Your task to perform on an android device: turn on showing notifications on the lock screen Image 0: 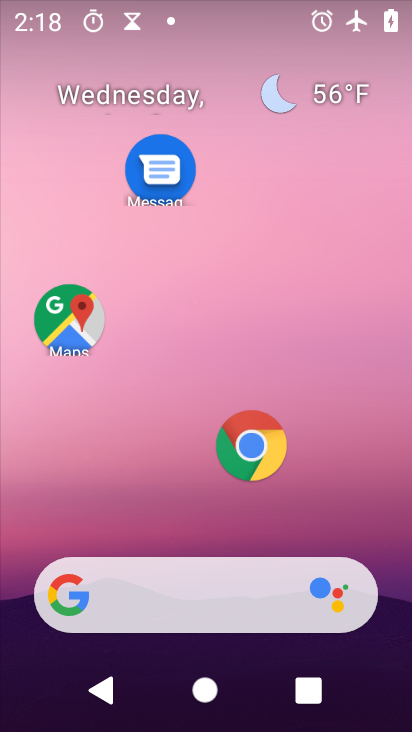
Step 0: drag from (220, 508) to (253, 172)
Your task to perform on an android device: turn on showing notifications on the lock screen Image 1: 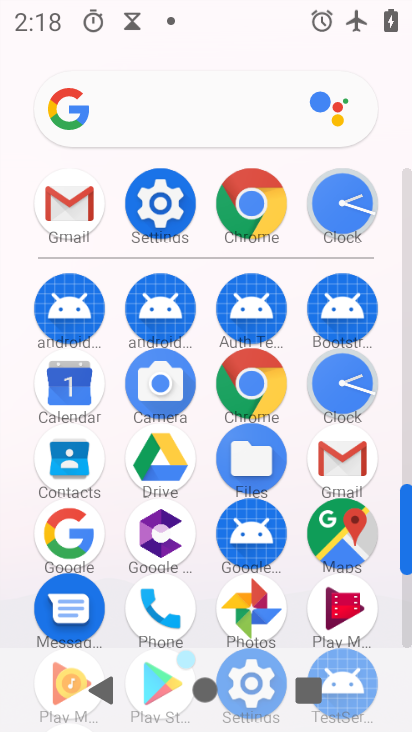
Step 1: drag from (203, 265) to (230, 48)
Your task to perform on an android device: turn on showing notifications on the lock screen Image 2: 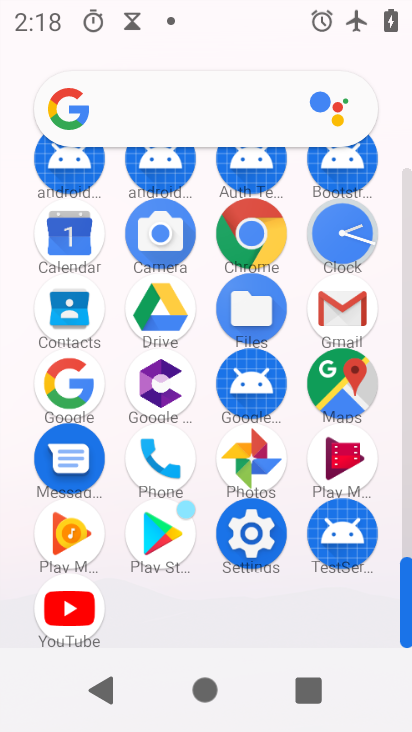
Step 2: click (235, 549)
Your task to perform on an android device: turn on showing notifications on the lock screen Image 3: 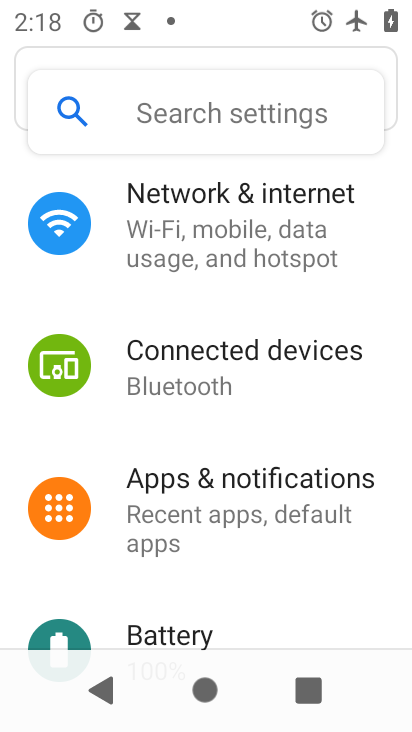
Step 3: click (283, 507)
Your task to perform on an android device: turn on showing notifications on the lock screen Image 4: 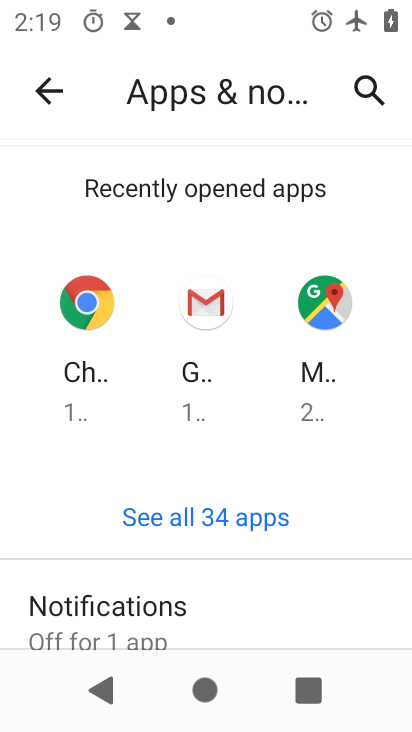
Step 4: drag from (166, 617) to (164, 403)
Your task to perform on an android device: turn on showing notifications on the lock screen Image 5: 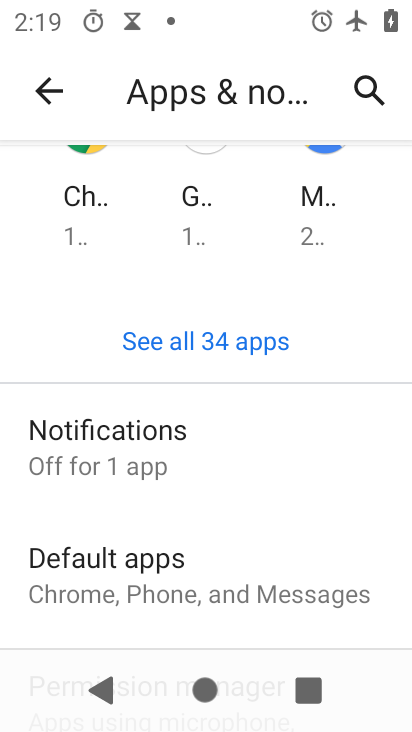
Step 5: click (162, 457)
Your task to perform on an android device: turn on showing notifications on the lock screen Image 6: 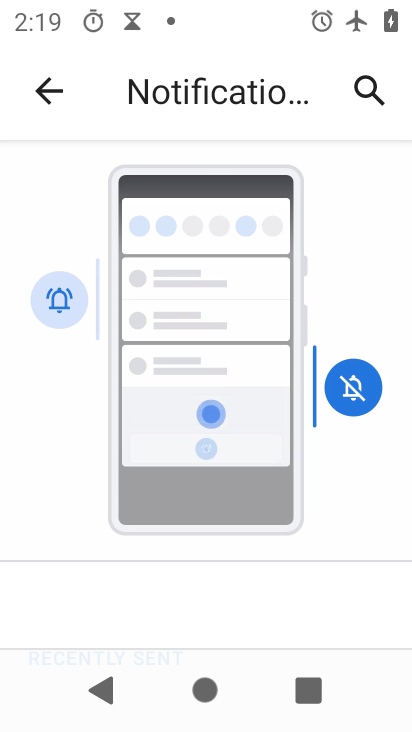
Step 6: task complete